Your task to perform on an android device: Search for vegetarian restaurants on Maps Image 0: 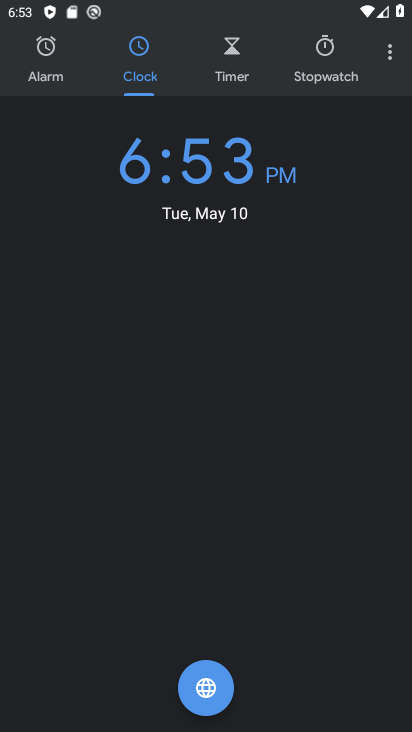
Step 0: press home button
Your task to perform on an android device: Search for vegetarian restaurants on Maps Image 1: 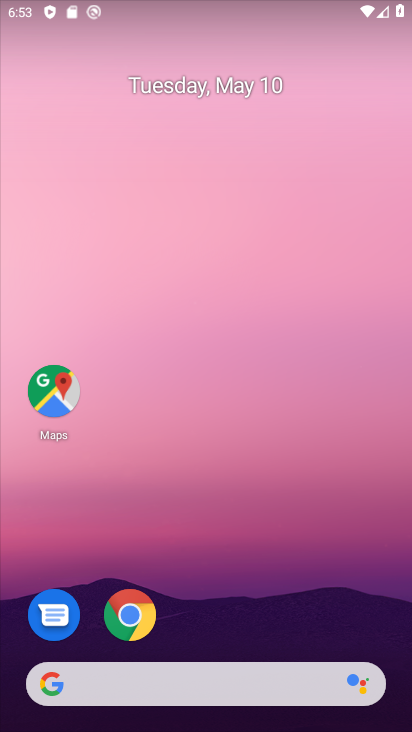
Step 1: click (53, 393)
Your task to perform on an android device: Search for vegetarian restaurants on Maps Image 2: 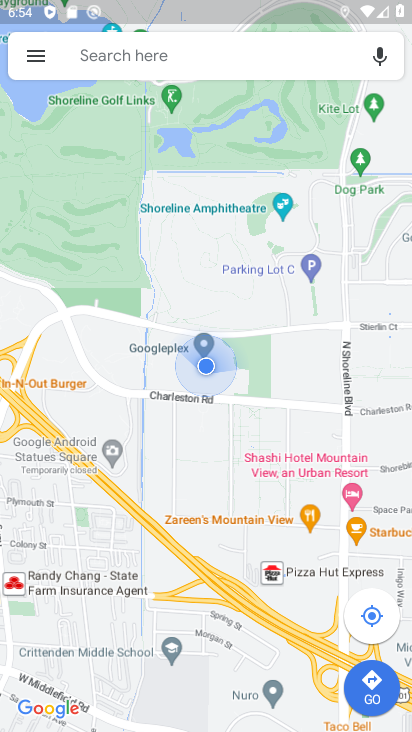
Step 2: click (123, 56)
Your task to perform on an android device: Search for vegetarian restaurants on Maps Image 3: 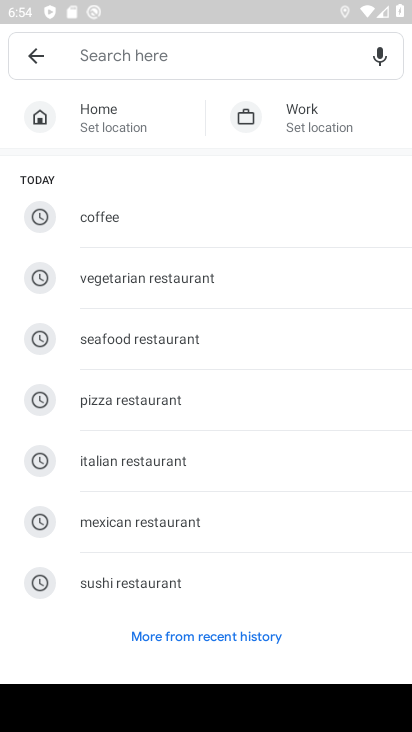
Step 3: click (158, 278)
Your task to perform on an android device: Search for vegetarian restaurants on Maps Image 4: 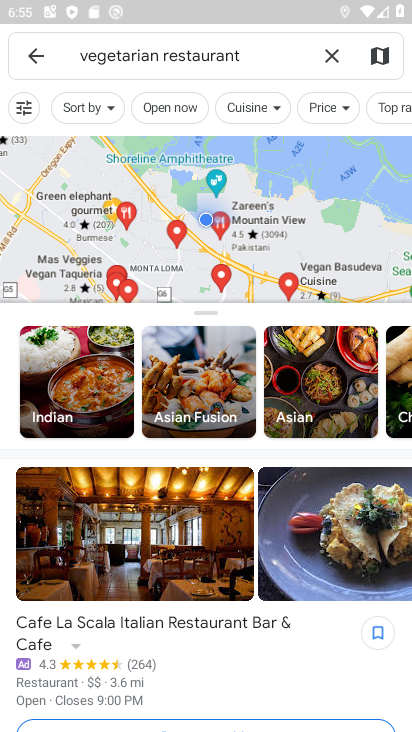
Step 4: task complete